Your task to perform on an android device: turn on priority inbox in the gmail app Image 0: 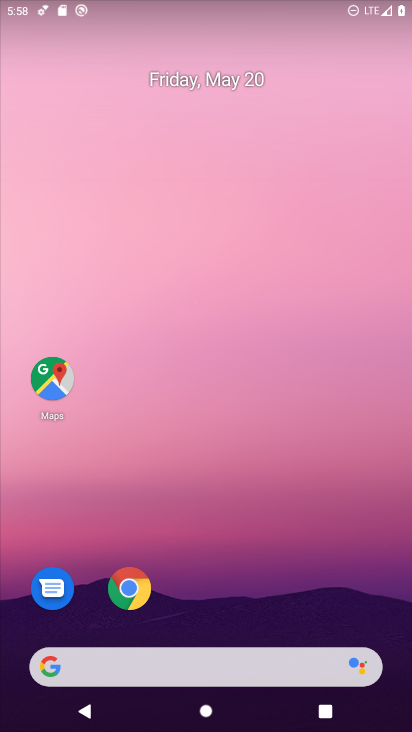
Step 0: drag from (210, 540) to (261, 164)
Your task to perform on an android device: turn on priority inbox in the gmail app Image 1: 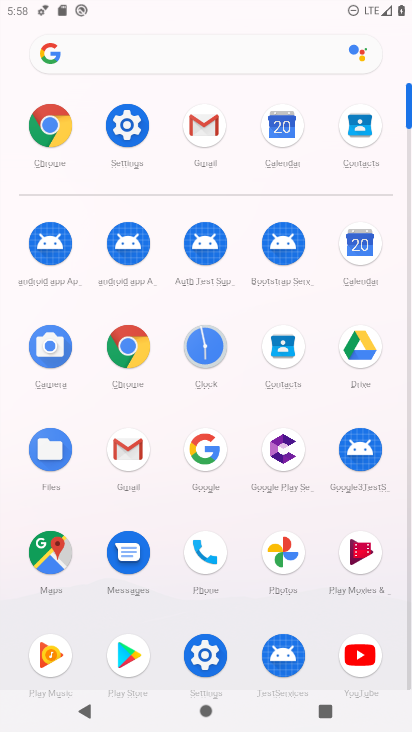
Step 1: click (205, 141)
Your task to perform on an android device: turn on priority inbox in the gmail app Image 2: 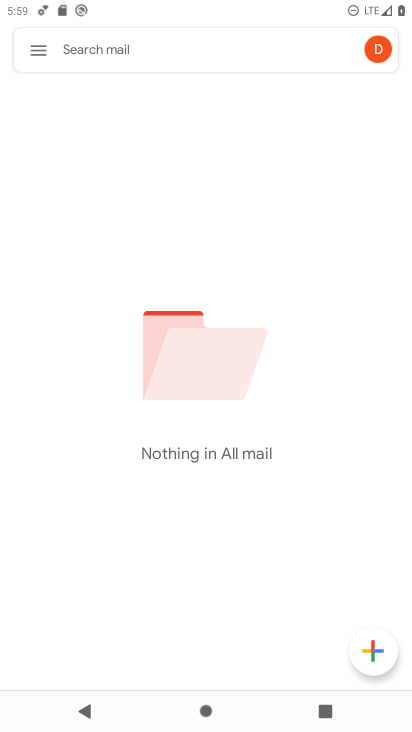
Step 2: click (34, 59)
Your task to perform on an android device: turn on priority inbox in the gmail app Image 3: 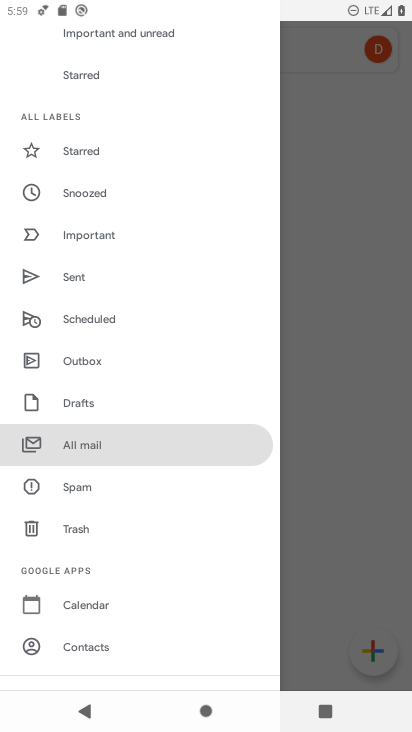
Step 3: drag from (108, 632) to (118, 340)
Your task to perform on an android device: turn on priority inbox in the gmail app Image 4: 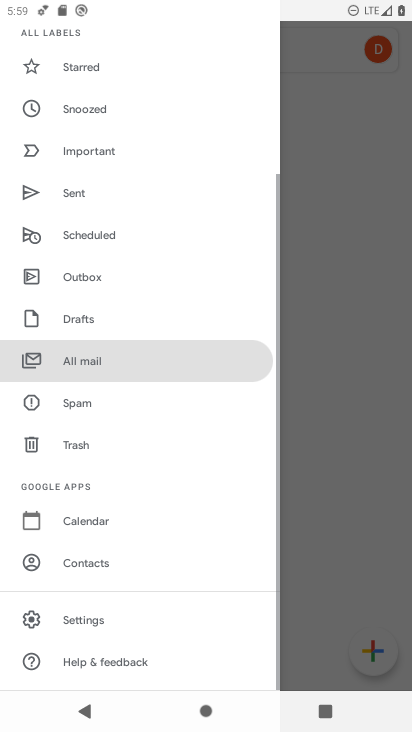
Step 4: click (76, 626)
Your task to perform on an android device: turn on priority inbox in the gmail app Image 5: 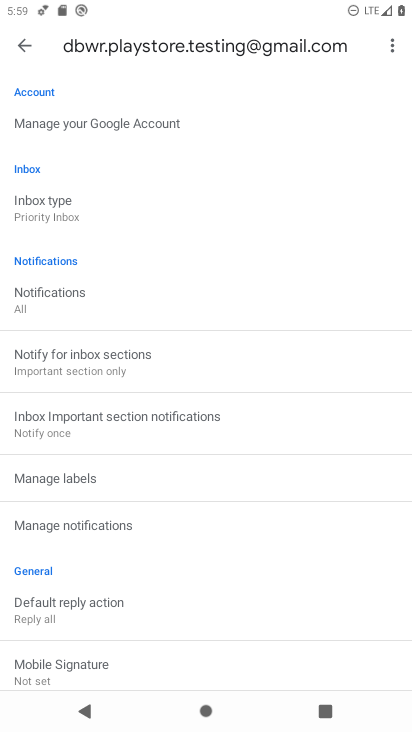
Step 5: click (55, 207)
Your task to perform on an android device: turn on priority inbox in the gmail app Image 6: 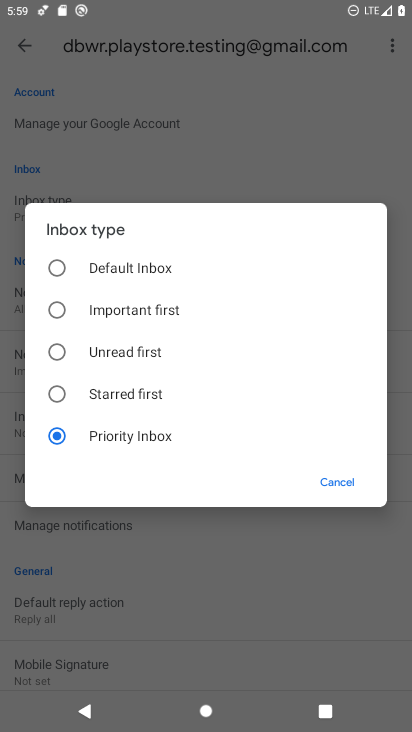
Step 6: task complete